Your task to perform on an android device: Open the Play Movies app and select the watchlist tab. Image 0: 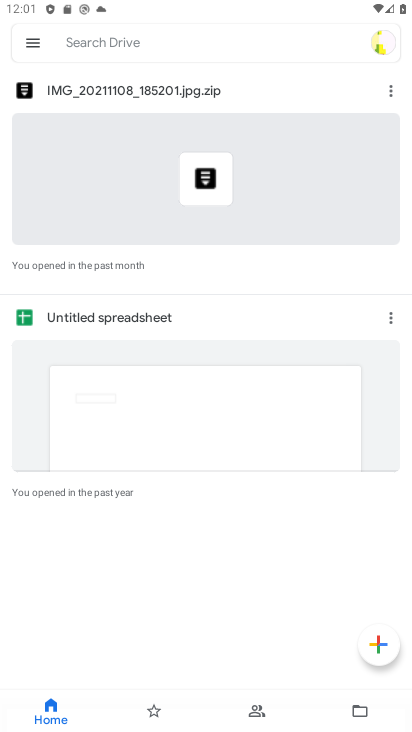
Step 0: press home button
Your task to perform on an android device: Open the Play Movies app and select the watchlist tab. Image 1: 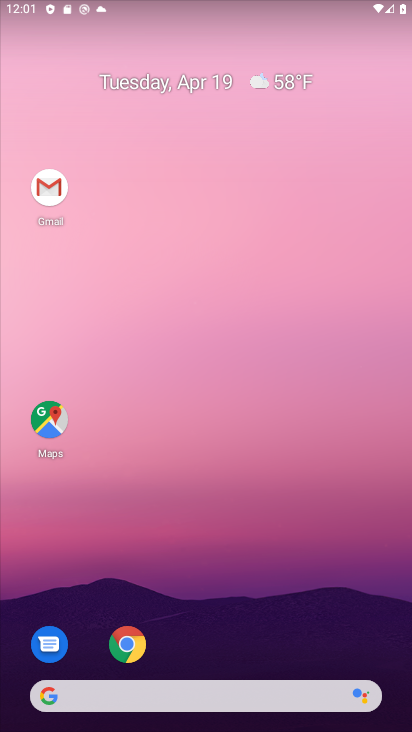
Step 1: drag from (232, 574) to (287, 199)
Your task to perform on an android device: Open the Play Movies app and select the watchlist tab. Image 2: 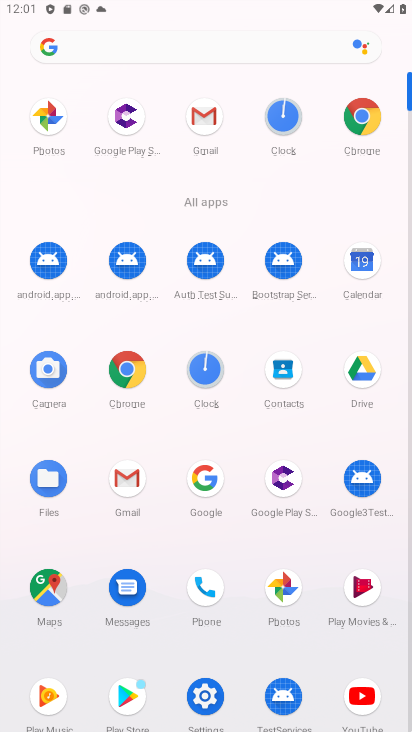
Step 2: click (367, 589)
Your task to perform on an android device: Open the Play Movies app and select the watchlist tab. Image 3: 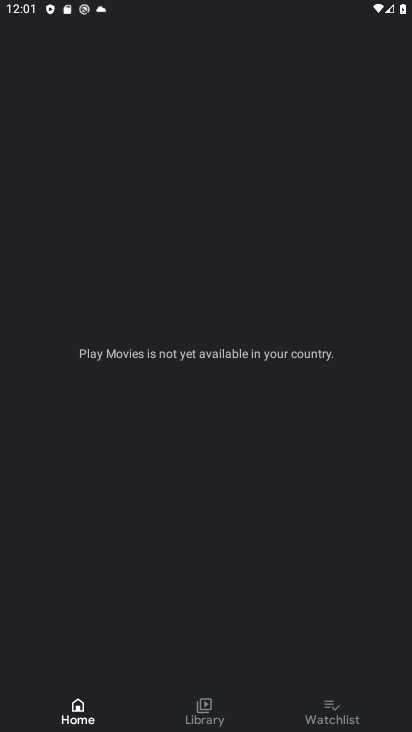
Step 3: click (325, 699)
Your task to perform on an android device: Open the Play Movies app and select the watchlist tab. Image 4: 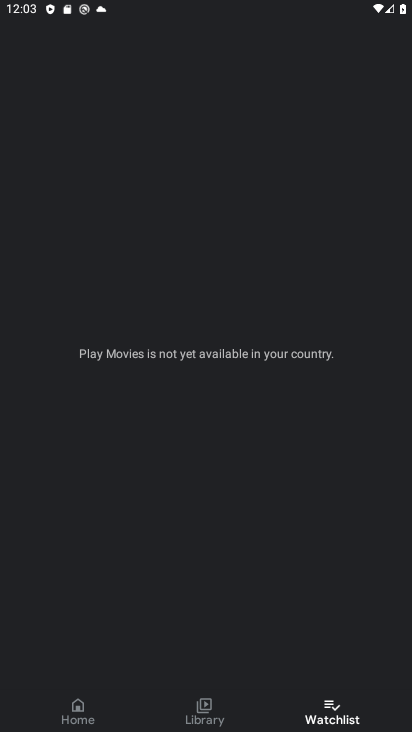
Step 4: task complete